Your task to perform on an android device: Open privacy settings Image 0: 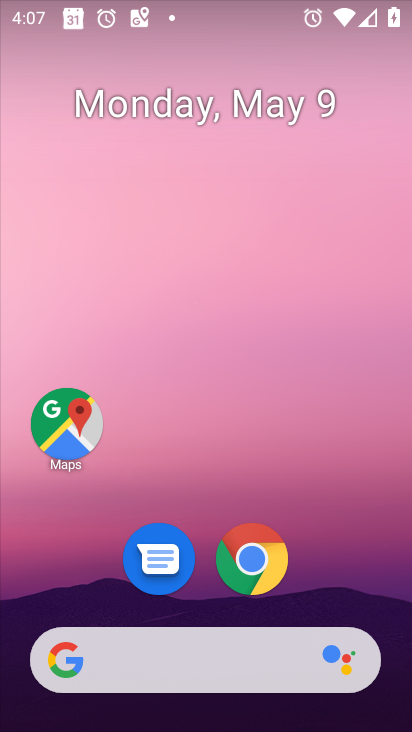
Step 0: drag from (233, 724) to (205, 96)
Your task to perform on an android device: Open privacy settings Image 1: 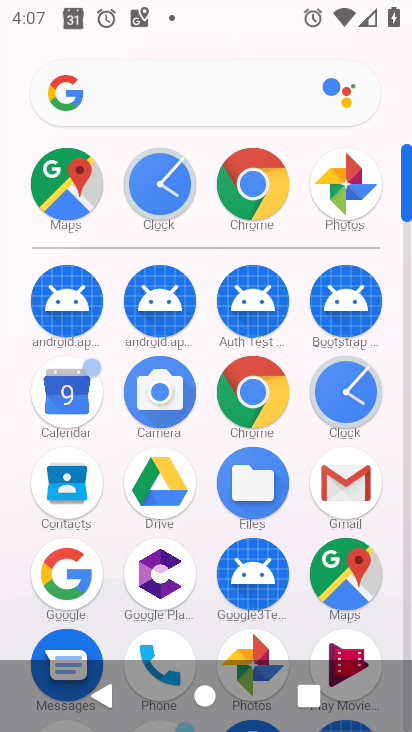
Step 1: drag from (207, 613) to (205, 141)
Your task to perform on an android device: Open privacy settings Image 2: 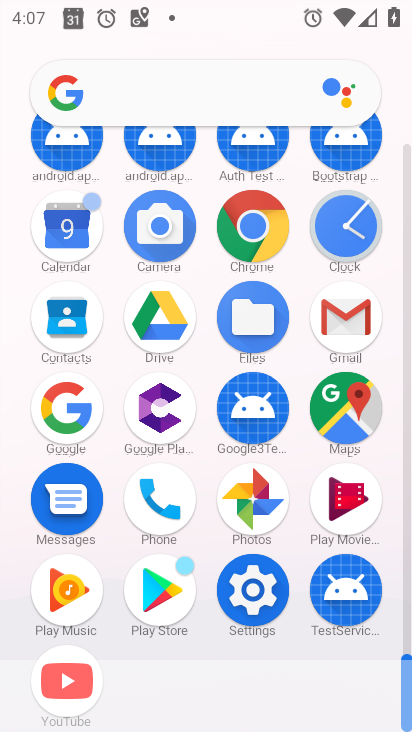
Step 2: click (263, 588)
Your task to perform on an android device: Open privacy settings Image 3: 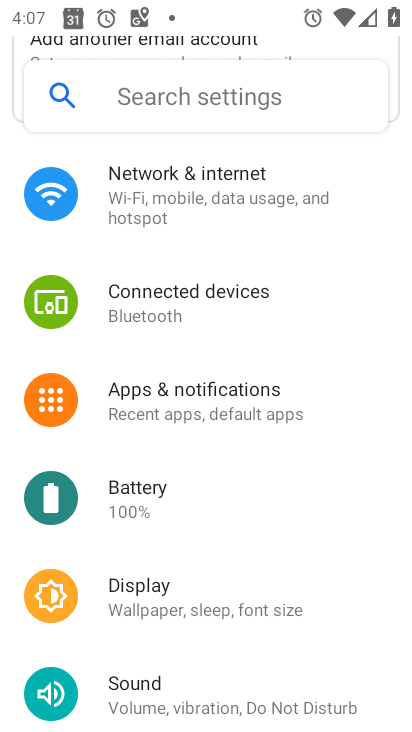
Step 3: drag from (177, 656) to (192, 231)
Your task to perform on an android device: Open privacy settings Image 4: 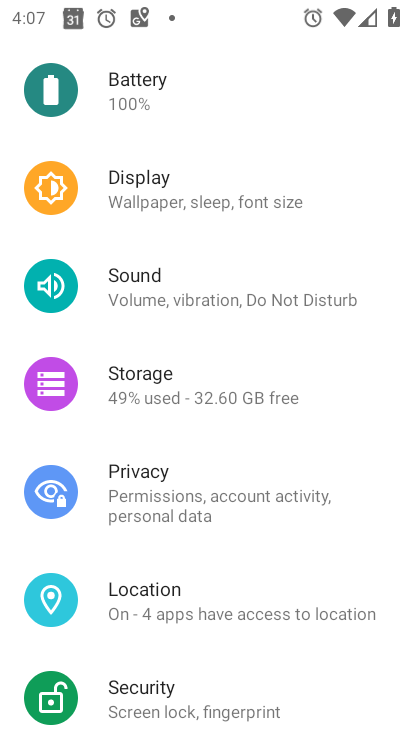
Step 4: click (149, 485)
Your task to perform on an android device: Open privacy settings Image 5: 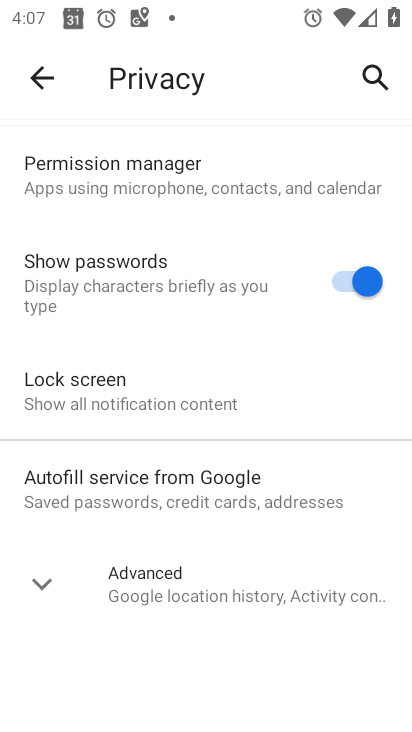
Step 5: task complete